Your task to perform on an android device: change notification settings in the gmail app Image 0: 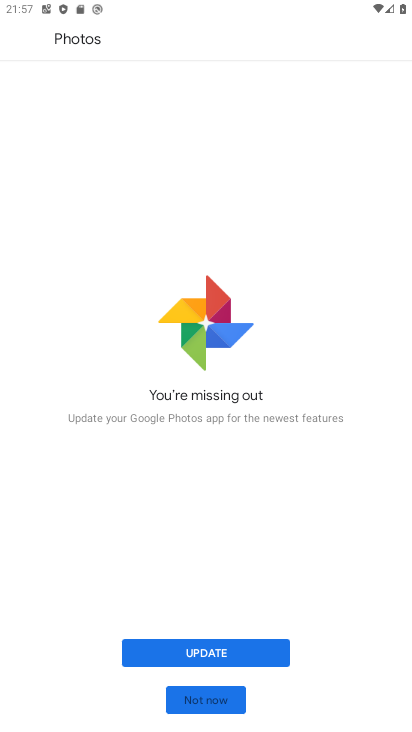
Step 0: press home button
Your task to perform on an android device: change notification settings in the gmail app Image 1: 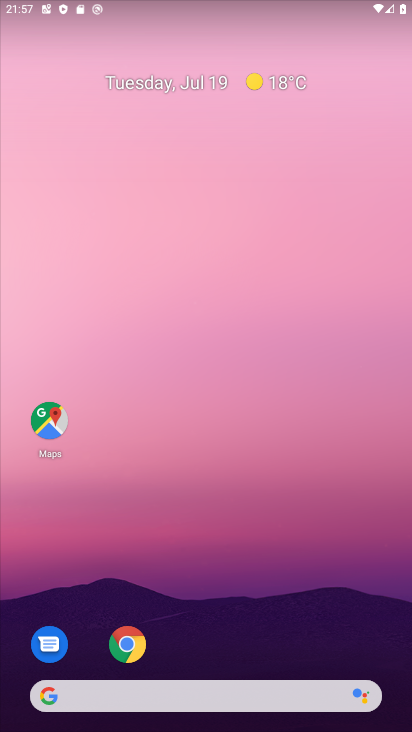
Step 1: drag from (237, 730) to (215, 233)
Your task to perform on an android device: change notification settings in the gmail app Image 2: 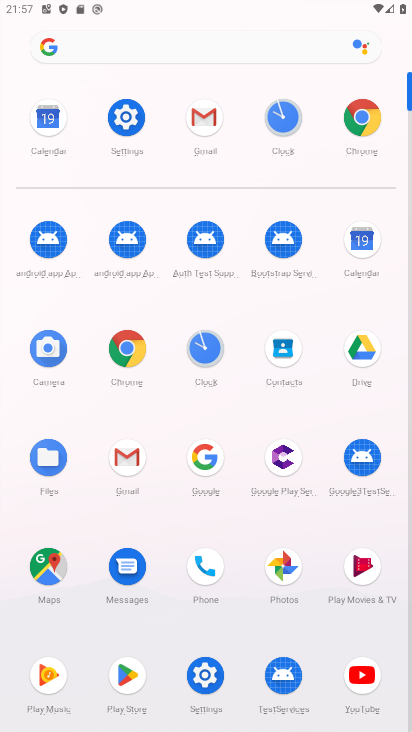
Step 2: click (132, 451)
Your task to perform on an android device: change notification settings in the gmail app Image 3: 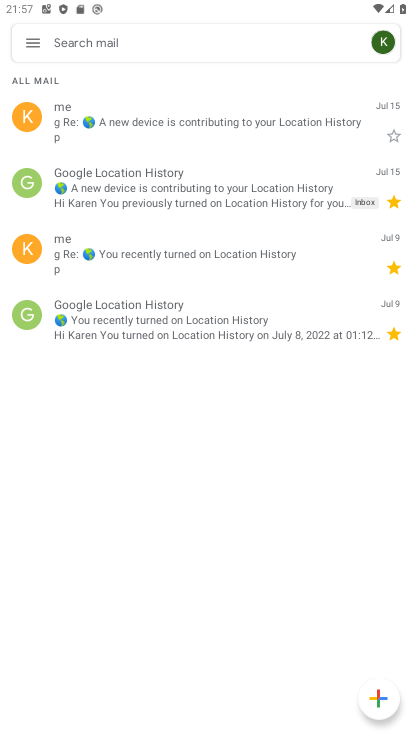
Step 3: click (32, 46)
Your task to perform on an android device: change notification settings in the gmail app Image 4: 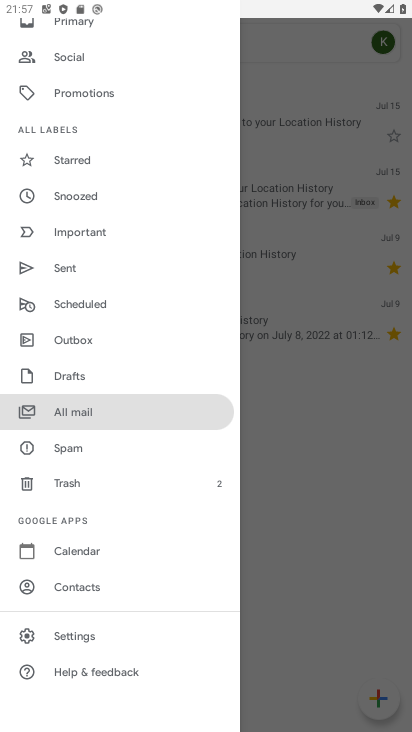
Step 4: click (84, 630)
Your task to perform on an android device: change notification settings in the gmail app Image 5: 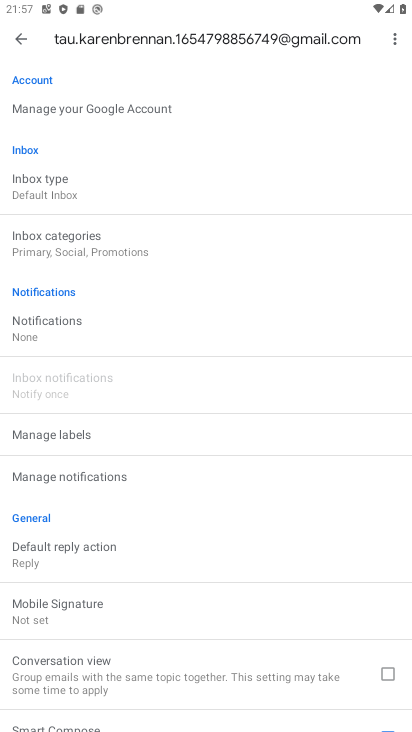
Step 5: click (39, 322)
Your task to perform on an android device: change notification settings in the gmail app Image 6: 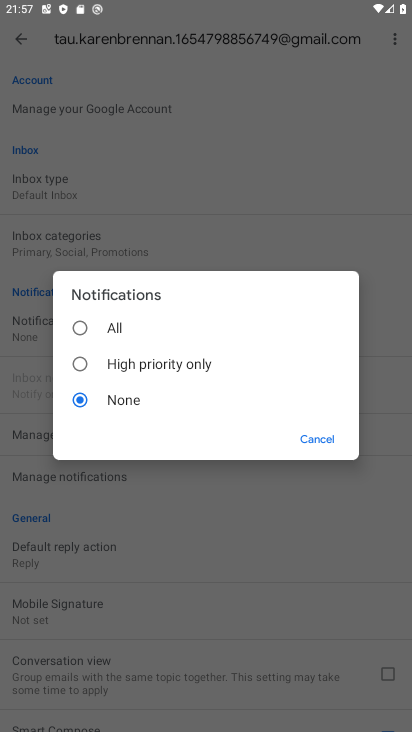
Step 6: click (75, 326)
Your task to perform on an android device: change notification settings in the gmail app Image 7: 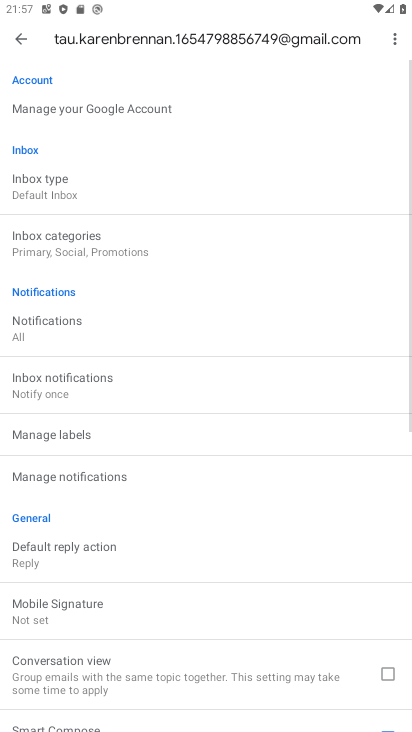
Step 7: task complete